Your task to perform on an android device: see tabs open on other devices in the chrome app Image 0: 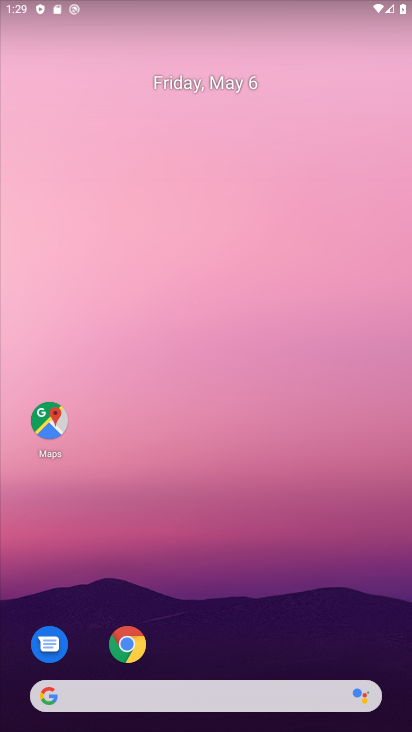
Step 0: click (122, 639)
Your task to perform on an android device: see tabs open on other devices in the chrome app Image 1: 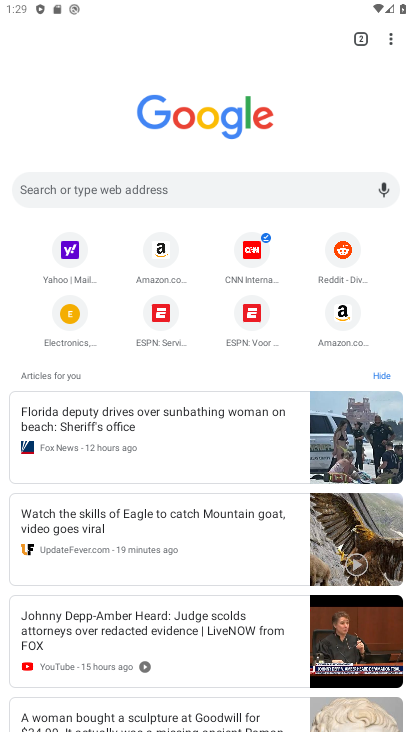
Step 1: task complete